Your task to perform on an android device: refresh tabs in the chrome app Image 0: 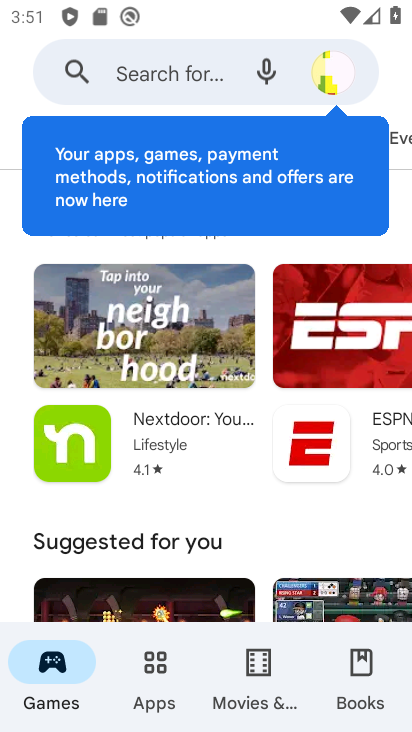
Step 0: press home button
Your task to perform on an android device: refresh tabs in the chrome app Image 1: 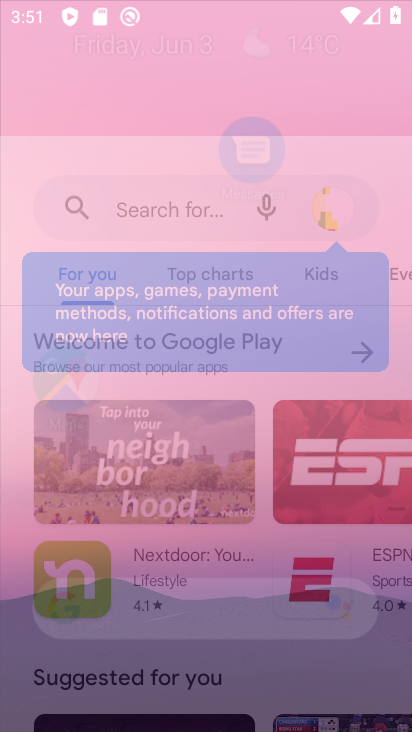
Step 1: press home button
Your task to perform on an android device: refresh tabs in the chrome app Image 2: 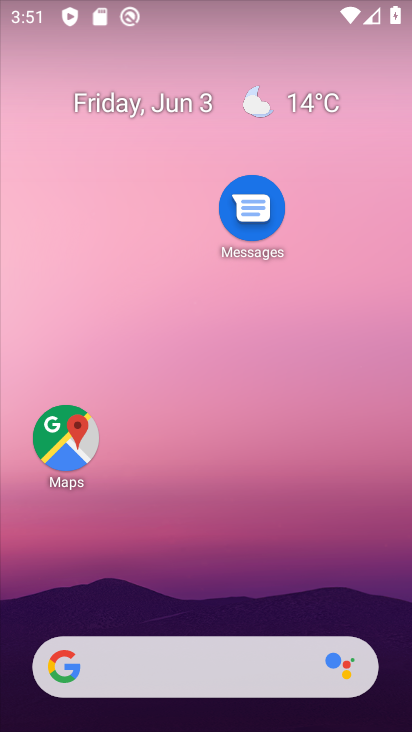
Step 2: drag from (215, 697) to (249, 175)
Your task to perform on an android device: refresh tabs in the chrome app Image 3: 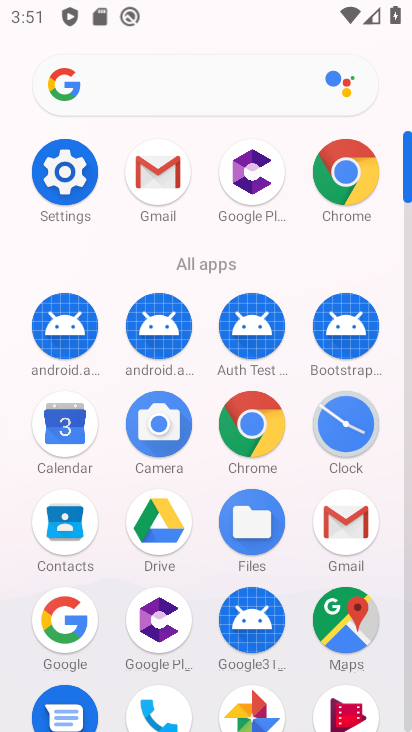
Step 3: click (246, 435)
Your task to perform on an android device: refresh tabs in the chrome app Image 4: 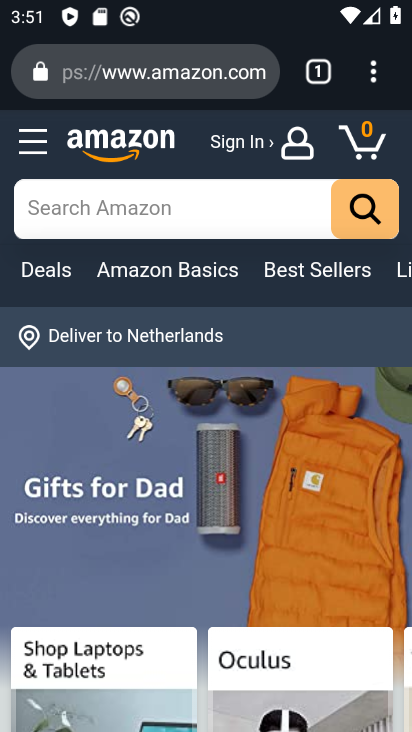
Step 4: click (363, 70)
Your task to perform on an android device: refresh tabs in the chrome app Image 5: 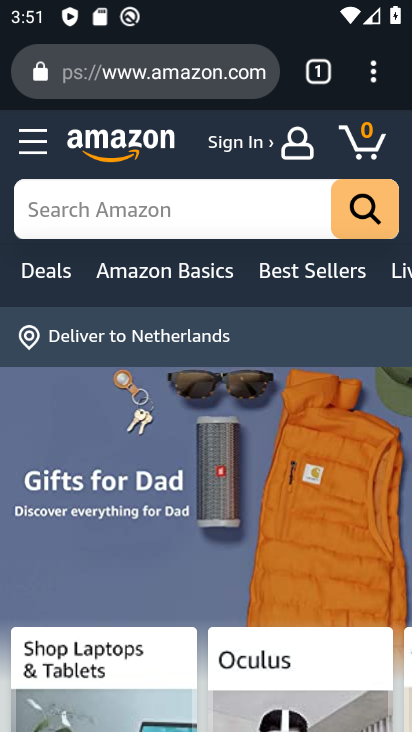
Step 5: click (375, 79)
Your task to perform on an android device: refresh tabs in the chrome app Image 6: 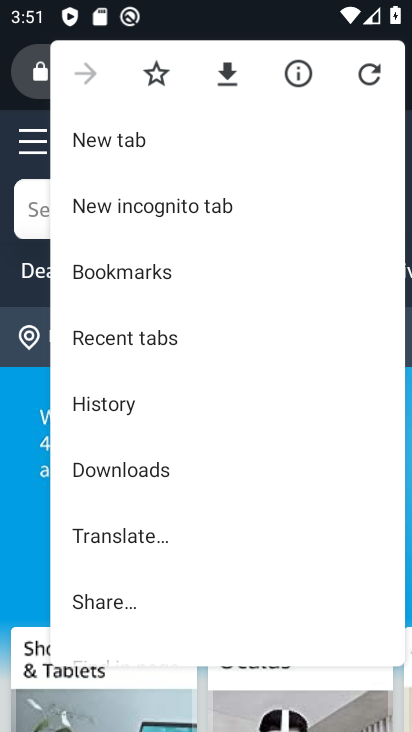
Step 6: click (368, 84)
Your task to perform on an android device: refresh tabs in the chrome app Image 7: 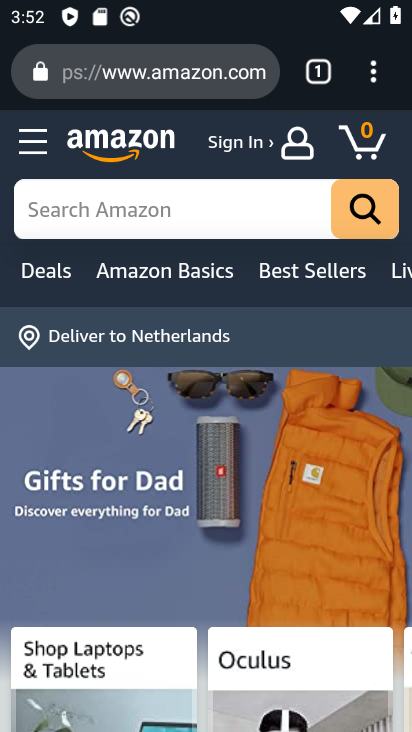
Step 7: task complete